Your task to perform on an android device: Clear the shopping cart on newegg.com. Add "lenovo thinkpad" to the cart on newegg.com Image 0: 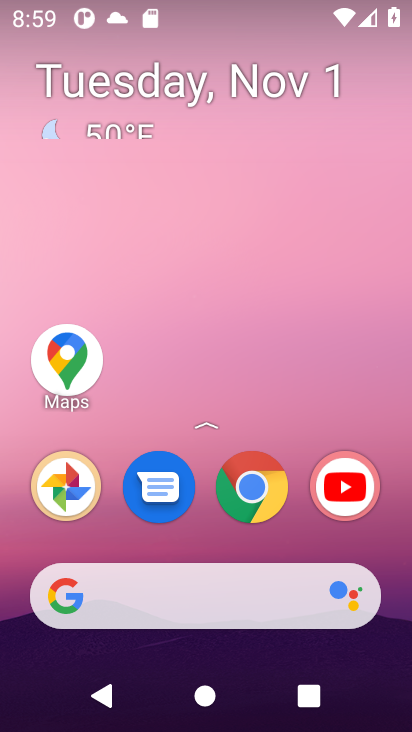
Step 0: drag from (200, 444) to (156, 38)
Your task to perform on an android device: Clear the shopping cart on newegg.com. Add "lenovo thinkpad" to the cart on newegg.com Image 1: 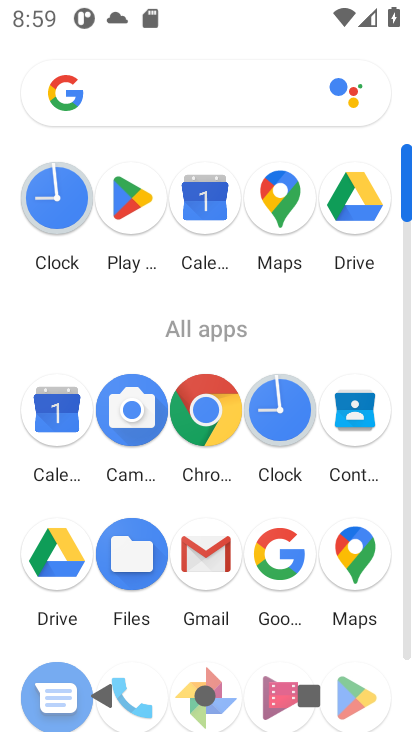
Step 1: click (202, 410)
Your task to perform on an android device: Clear the shopping cart on newegg.com. Add "lenovo thinkpad" to the cart on newegg.com Image 2: 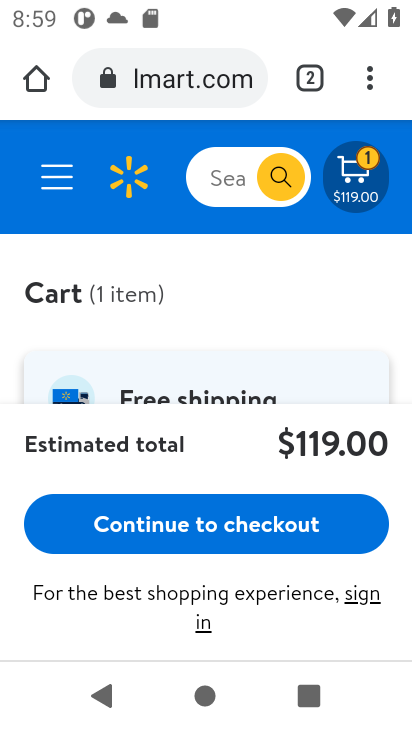
Step 2: click (162, 67)
Your task to perform on an android device: Clear the shopping cart on newegg.com. Add "lenovo thinkpad" to the cart on newegg.com Image 3: 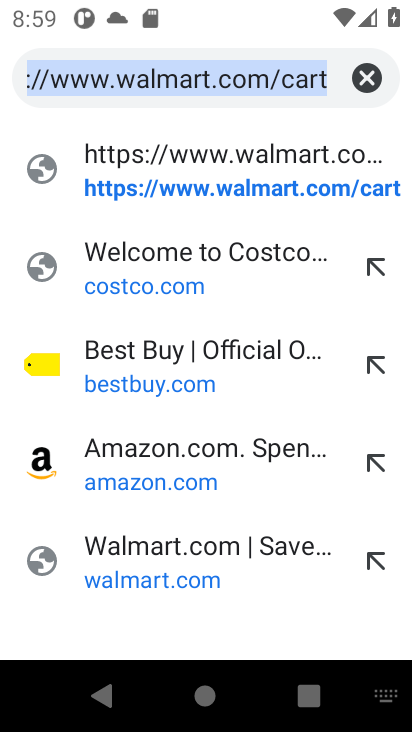
Step 3: type "newegg"
Your task to perform on an android device: Clear the shopping cart on newegg.com. Add "lenovo thinkpad" to the cart on newegg.com Image 4: 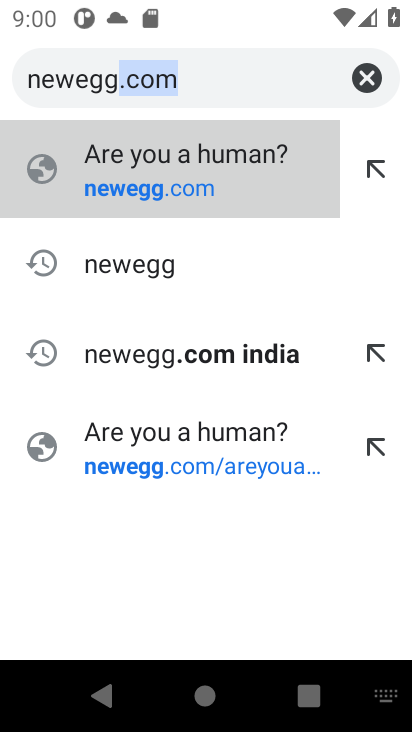
Step 4: click (110, 269)
Your task to perform on an android device: Clear the shopping cart on newegg.com. Add "lenovo thinkpad" to the cart on newegg.com Image 5: 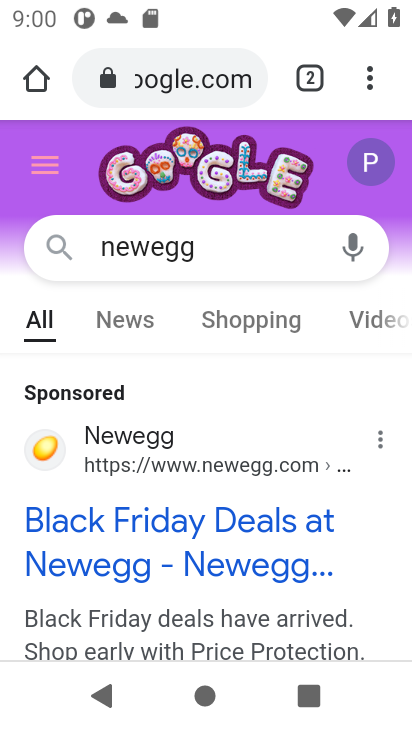
Step 5: drag from (190, 603) to (220, 84)
Your task to perform on an android device: Clear the shopping cart on newegg.com. Add "lenovo thinkpad" to the cart on newegg.com Image 6: 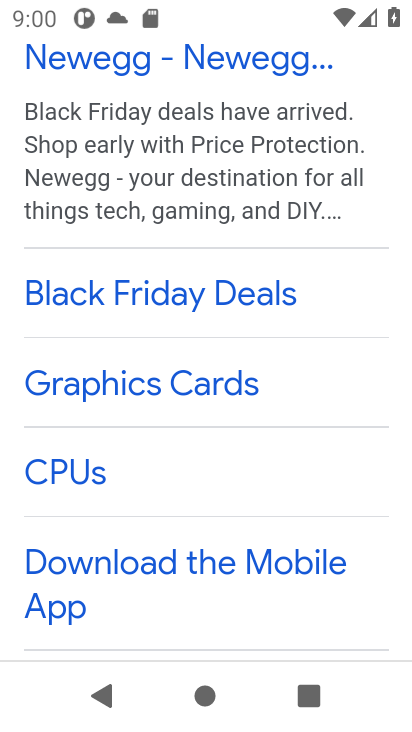
Step 6: drag from (190, 633) to (225, 106)
Your task to perform on an android device: Clear the shopping cart on newegg.com. Add "lenovo thinkpad" to the cart on newegg.com Image 7: 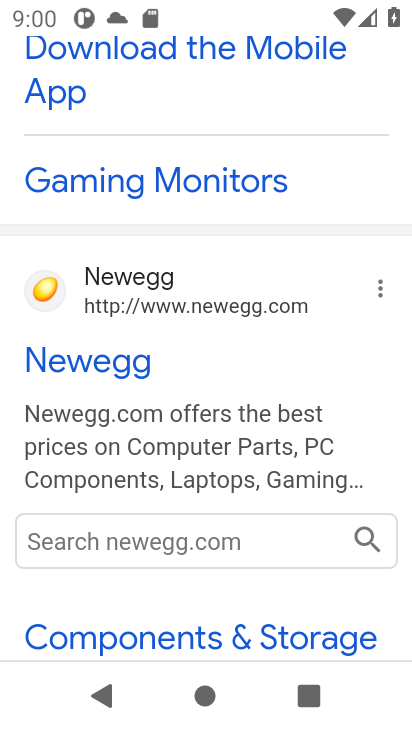
Step 7: click (122, 359)
Your task to perform on an android device: Clear the shopping cart on newegg.com. Add "lenovo thinkpad" to the cart on newegg.com Image 8: 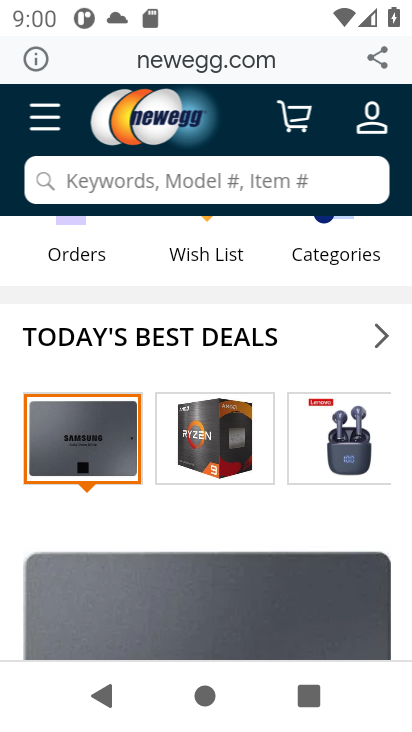
Step 8: drag from (209, 530) to (211, 195)
Your task to perform on an android device: Clear the shopping cart on newegg.com. Add "lenovo thinkpad" to the cart on newegg.com Image 9: 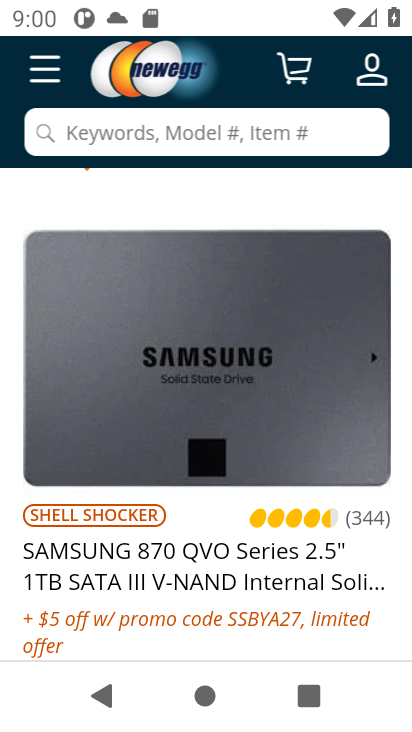
Step 9: drag from (233, 630) to (247, 315)
Your task to perform on an android device: Clear the shopping cart on newegg.com. Add "lenovo thinkpad" to the cart on newegg.com Image 10: 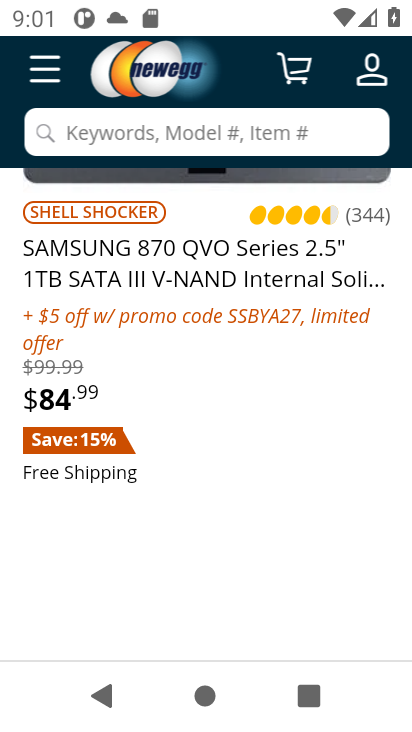
Step 10: drag from (201, 577) to (258, 274)
Your task to perform on an android device: Clear the shopping cart on newegg.com. Add "lenovo thinkpad" to the cart on newegg.com Image 11: 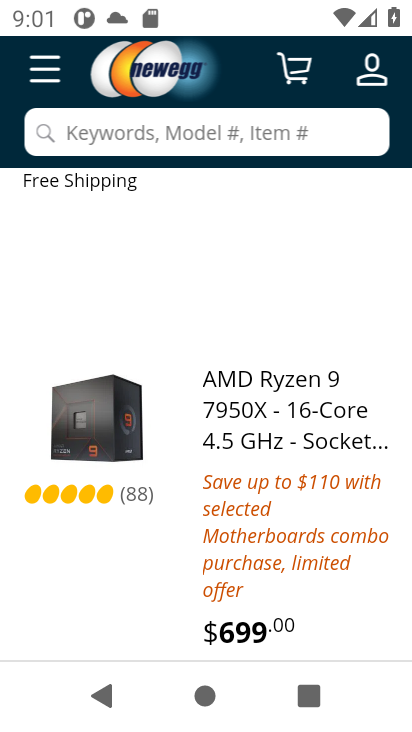
Step 11: drag from (296, 606) to (315, 380)
Your task to perform on an android device: Clear the shopping cart on newegg.com. Add "lenovo thinkpad" to the cart on newegg.com Image 12: 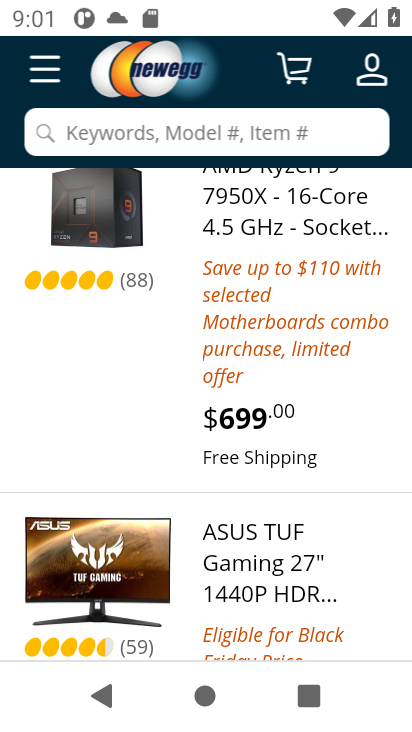
Step 12: click (152, 130)
Your task to perform on an android device: Clear the shopping cart on newegg.com. Add "lenovo thinkpad" to the cart on newegg.com Image 13: 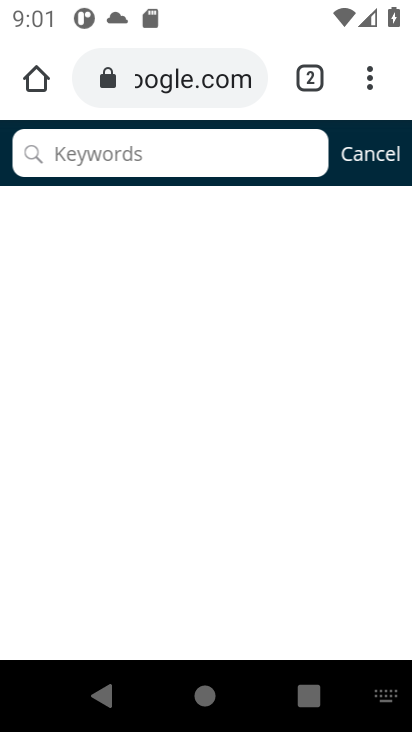
Step 13: type "lenovo thinkpad"
Your task to perform on an android device: Clear the shopping cart on newegg.com. Add "lenovo thinkpad" to the cart on newegg.com Image 14: 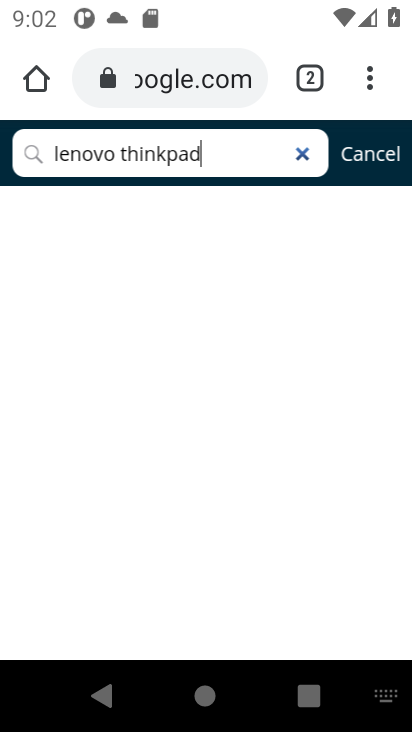
Step 14: task complete